Your task to perform on an android device: When is my next meeting? Image 0: 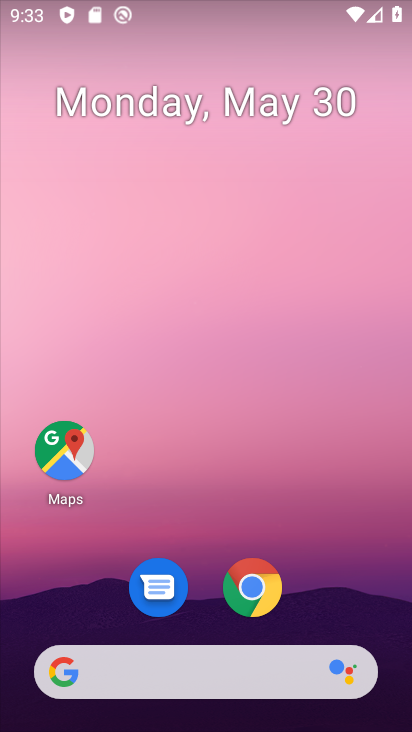
Step 0: drag from (331, 528) to (112, 21)
Your task to perform on an android device: When is my next meeting? Image 1: 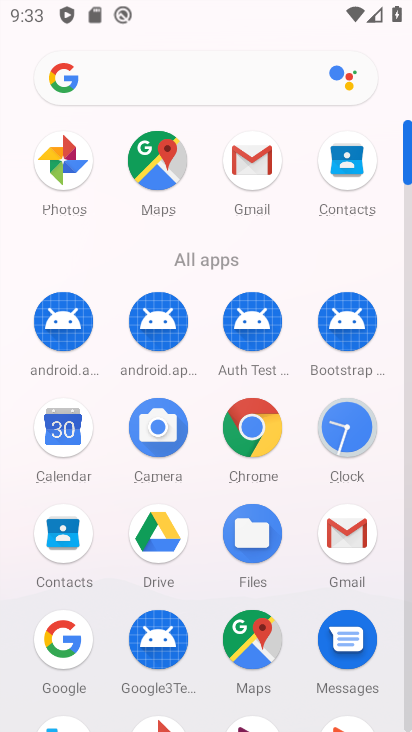
Step 1: drag from (10, 578) to (11, 231)
Your task to perform on an android device: When is my next meeting? Image 2: 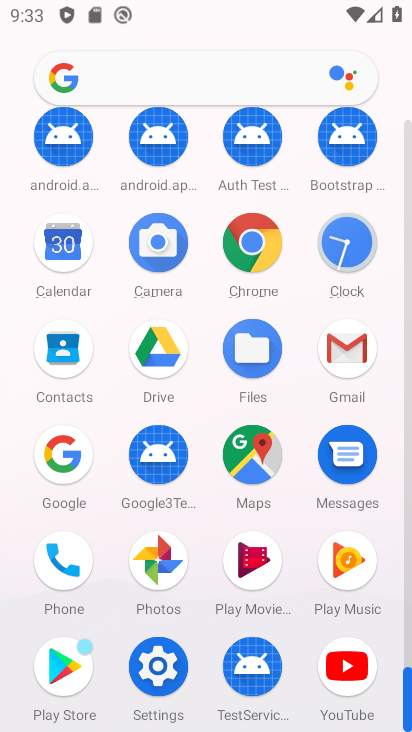
Step 2: drag from (16, 588) to (11, 239)
Your task to perform on an android device: When is my next meeting? Image 3: 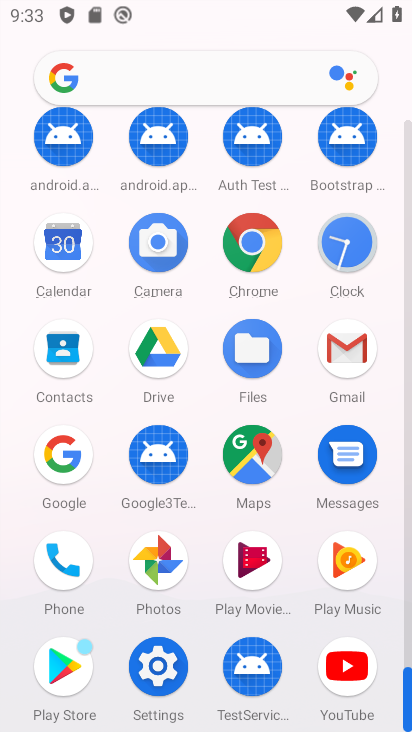
Step 3: drag from (26, 216) to (24, 540)
Your task to perform on an android device: When is my next meeting? Image 4: 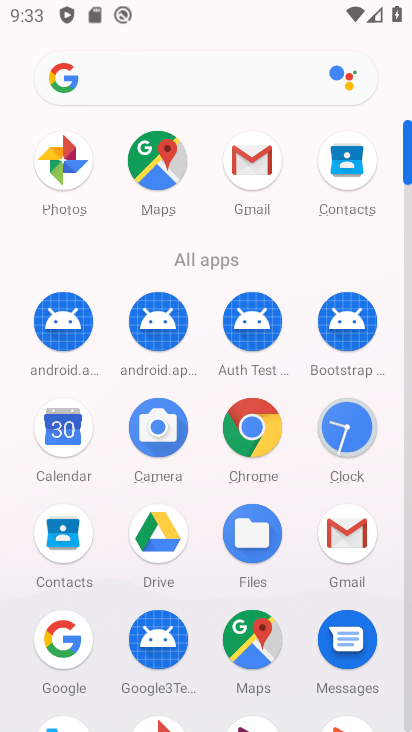
Step 4: drag from (7, 600) to (7, 300)
Your task to perform on an android device: When is my next meeting? Image 5: 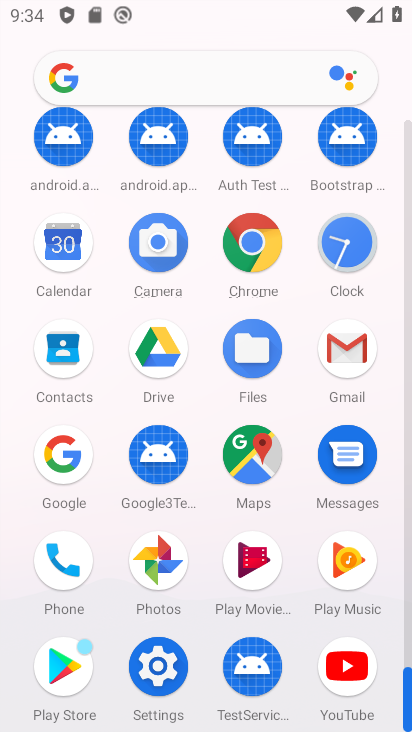
Step 5: click (60, 236)
Your task to perform on an android device: When is my next meeting? Image 6: 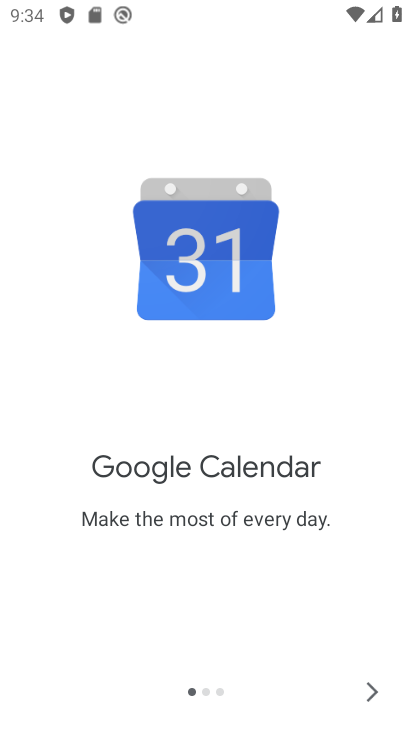
Step 6: click (371, 693)
Your task to perform on an android device: When is my next meeting? Image 7: 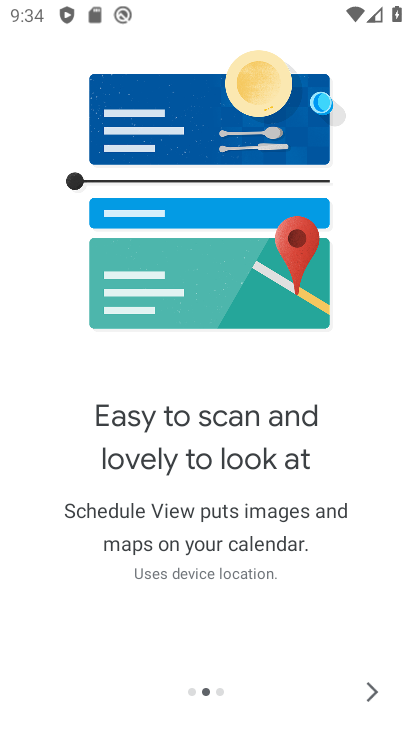
Step 7: click (371, 693)
Your task to perform on an android device: When is my next meeting? Image 8: 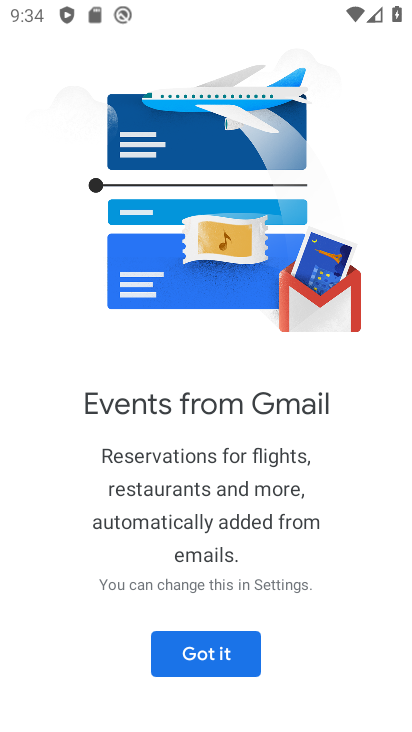
Step 8: click (224, 648)
Your task to perform on an android device: When is my next meeting? Image 9: 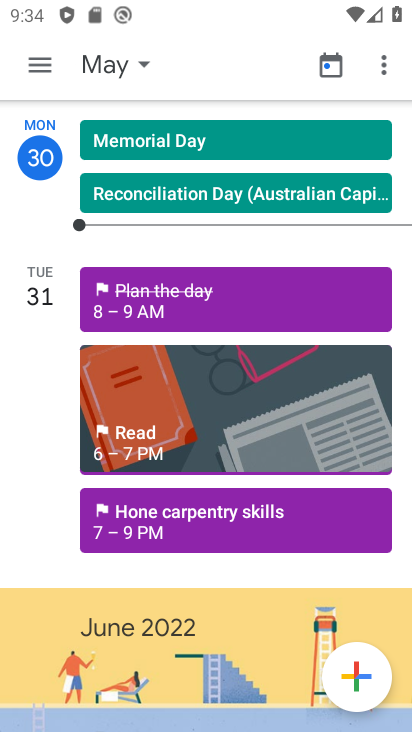
Step 9: click (46, 64)
Your task to perform on an android device: When is my next meeting? Image 10: 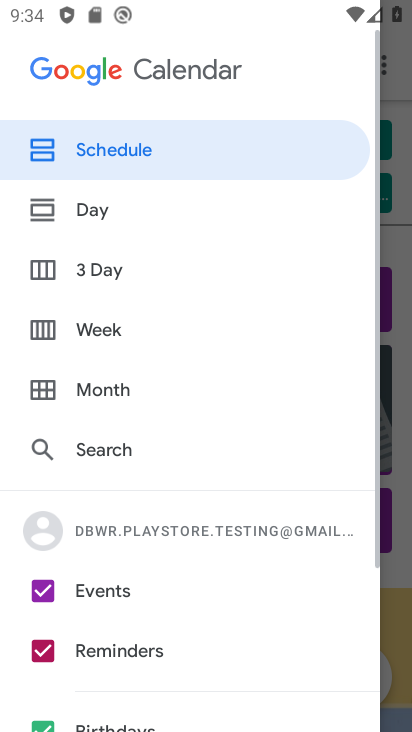
Step 10: click (199, 157)
Your task to perform on an android device: When is my next meeting? Image 11: 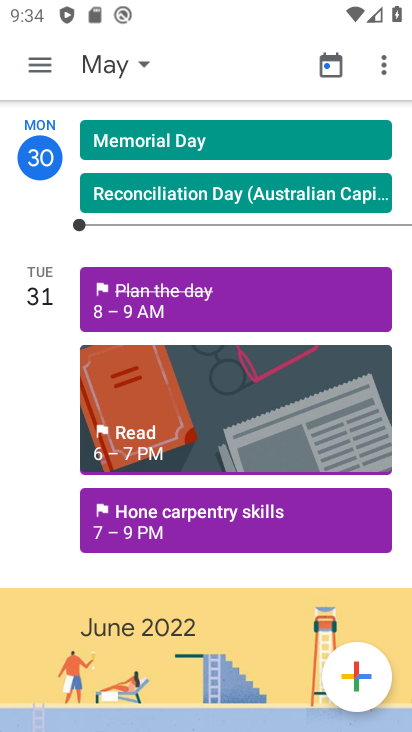
Step 11: task complete